Your task to perform on an android device: Open Reddit.com Image 0: 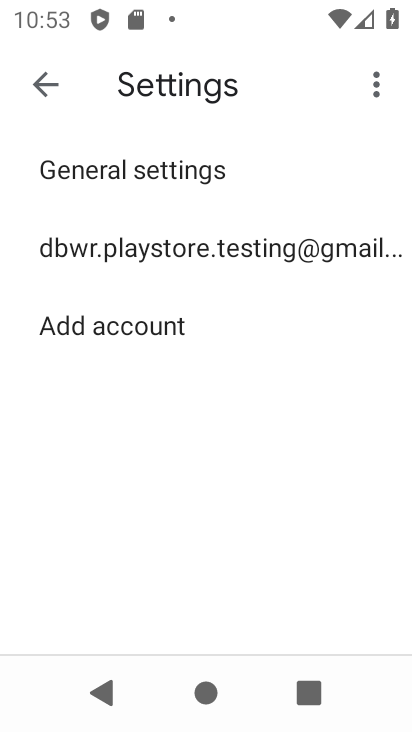
Step 0: press home button
Your task to perform on an android device: Open Reddit.com Image 1: 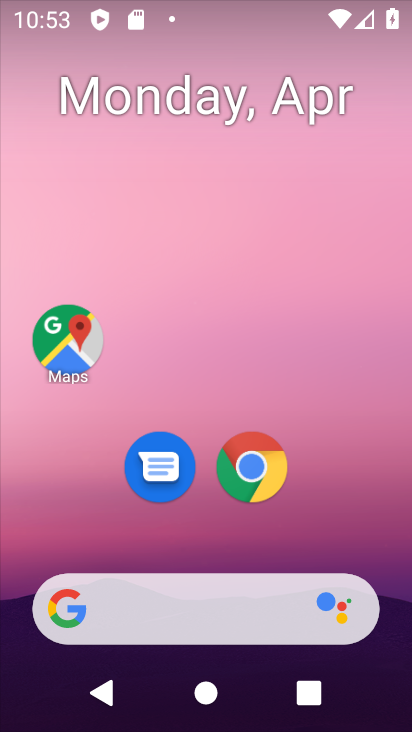
Step 1: click (261, 479)
Your task to perform on an android device: Open Reddit.com Image 2: 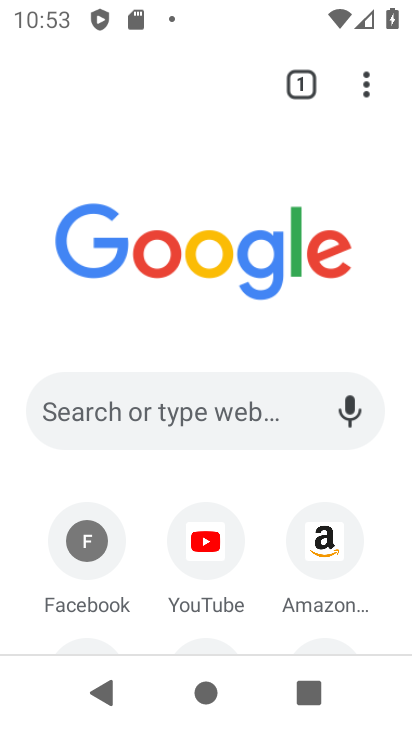
Step 2: click (233, 429)
Your task to perform on an android device: Open Reddit.com Image 3: 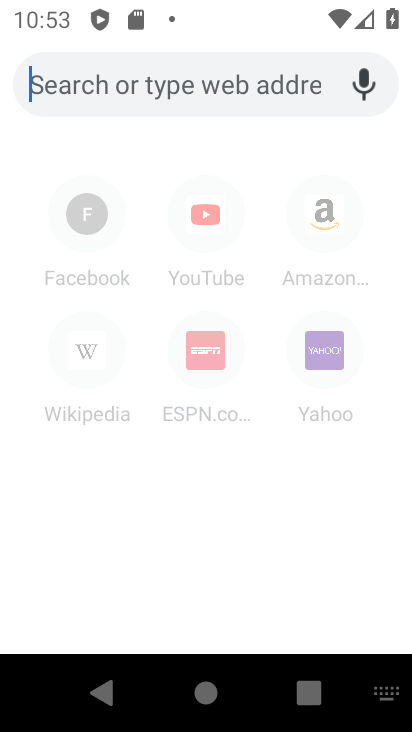
Step 3: type "reddit.com"
Your task to perform on an android device: Open Reddit.com Image 4: 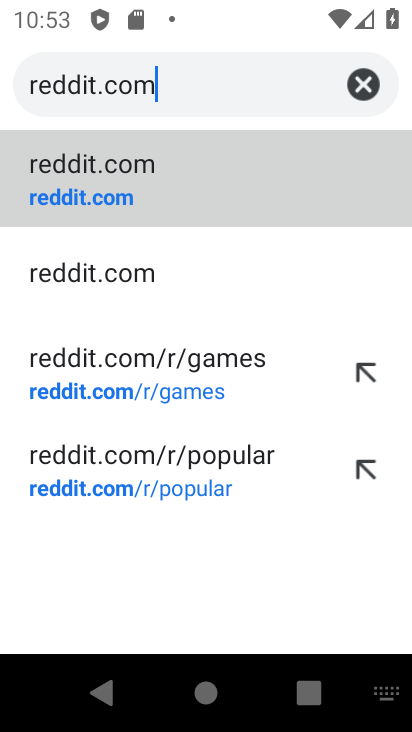
Step 4: click (132, 213)
Your task to perform on an android device: Open Reddit.com Image 5: 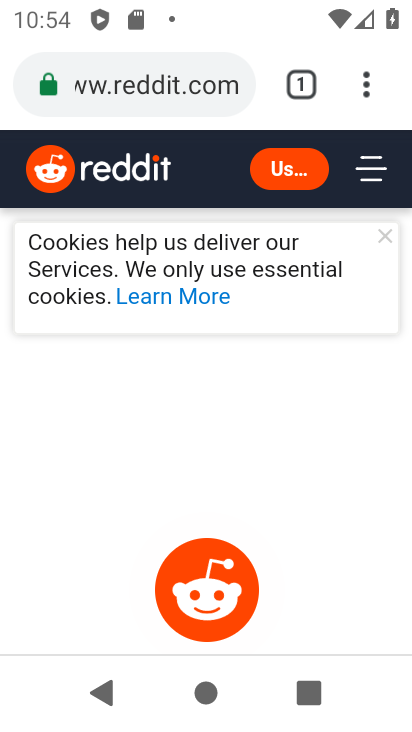
Step 5: task complete